Your task to perform on an android device: manage bookmarks in the chrome app Image 0: 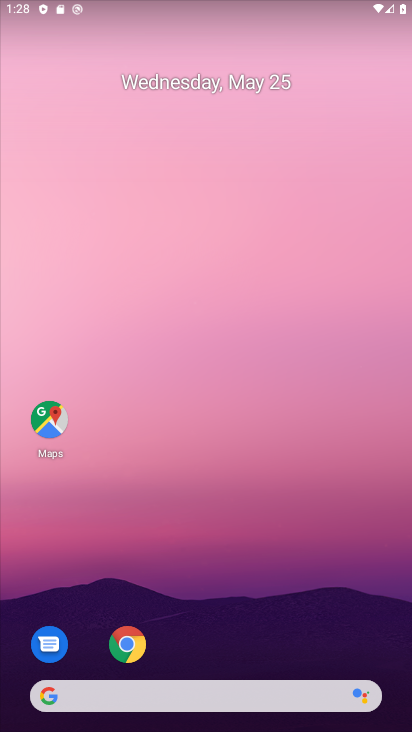
Step 0: drag from (351, 604) to (345, 199)
Your task to perform on an android device: manage bookmarks in the chrome app Image 1: 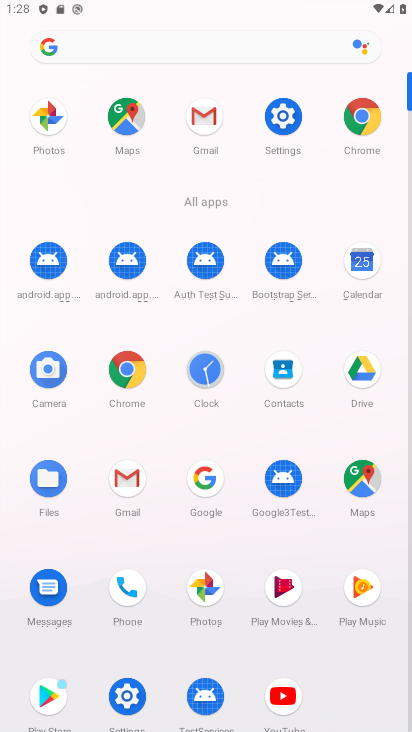
Step 1: click (119, 392)
Your task to perform on an android device: manage bookmarks in the chrome app Image 2: 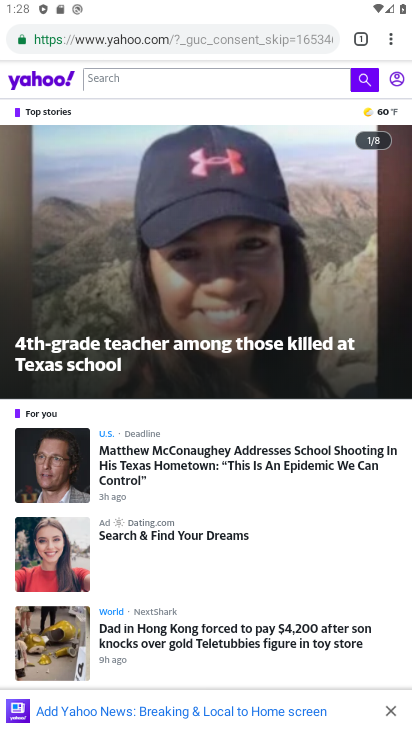
Step 2: click (391, 43)
Your task to perform on an android device: manage bookmarks in the chrome app Image 3: 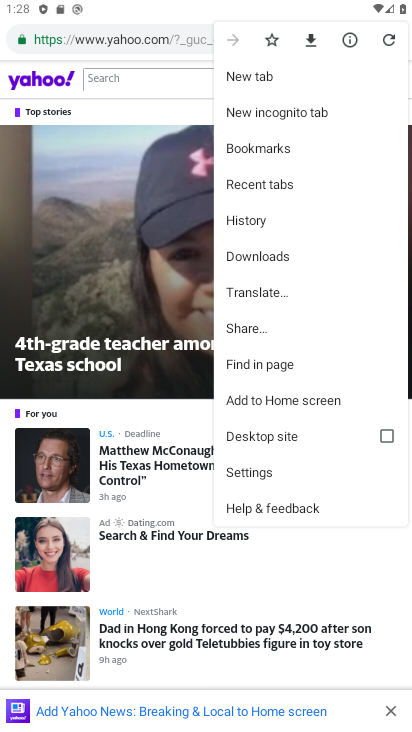
Step 3: click (287, 152)
Your task to perform on an android device: manage bookmarks in the chrome app Image 4: 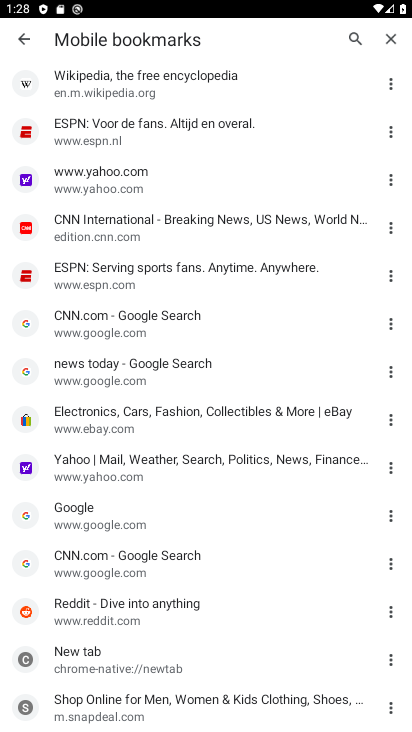
Step 4: drag from (312, 612) to (337, 378)
Your task to perform on an android device: manage bookmarks in the chrome app Image 5: 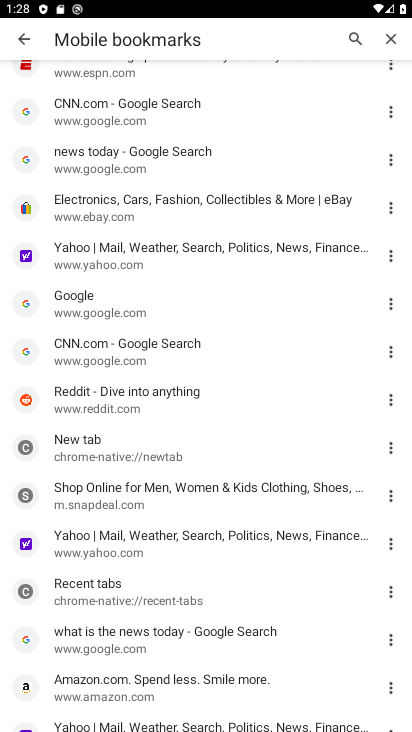
Step 5: drag from (318, 608) to (302, 362)
Your task to perform on an android device: manage bookmarks in the chrome app Image 6: 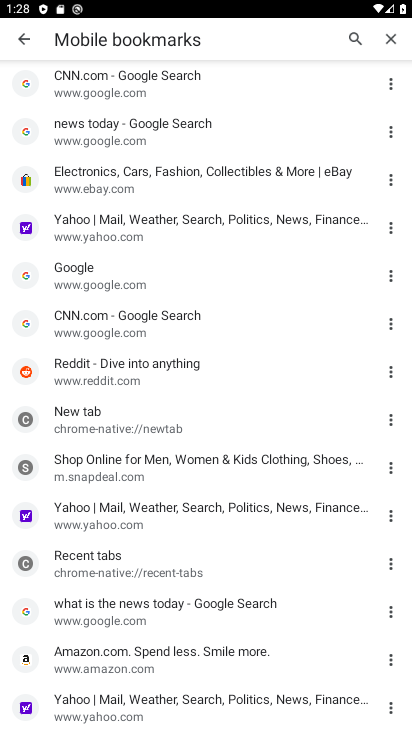
Step 6: click (171, 323)
Your task to perform on an android device: manage bookmarks in the chrome app Image 7: 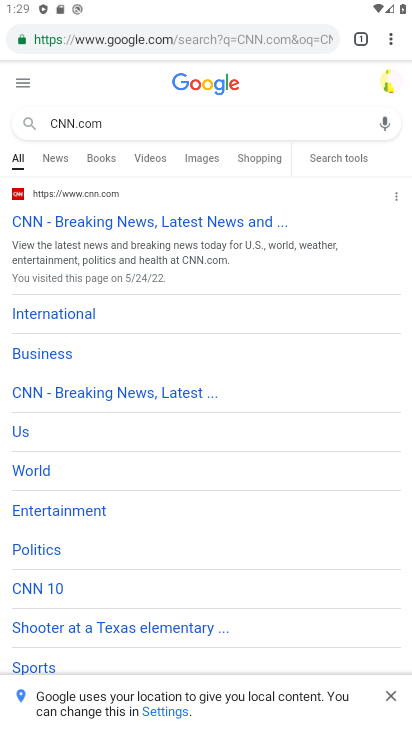
Step 7: task complete